Your task to perform on an android device: see creations saved in the google photos Image 0: 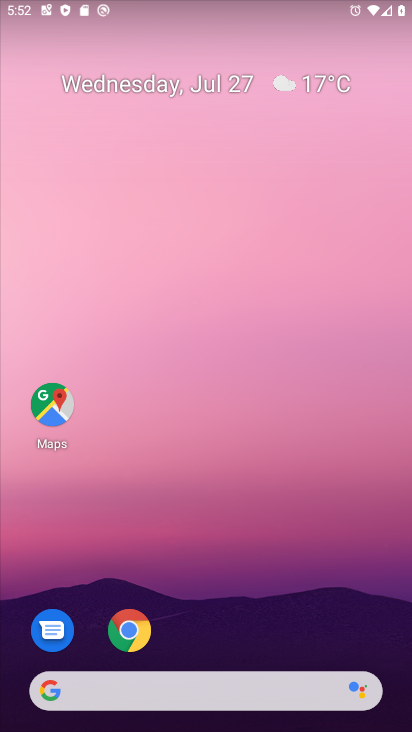
Step 0: drag from (226, 650) to (270, 144)
Your task to perform on an android device: see creations saved in the google photos Image 1: 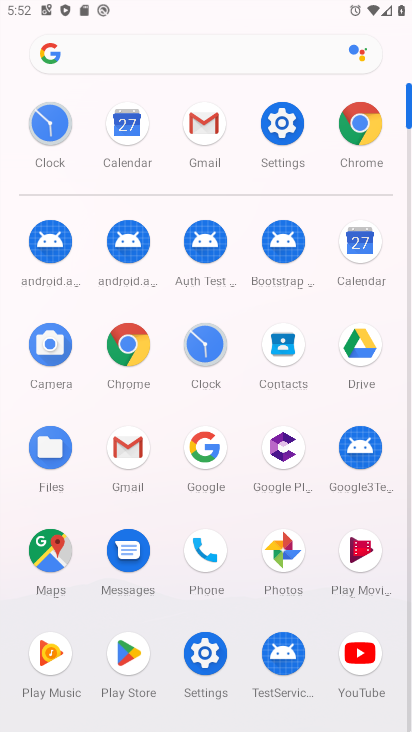
Step 1: click (286, 553)
Your task to perform on an android device: see creations saved in the google photos Image 2: 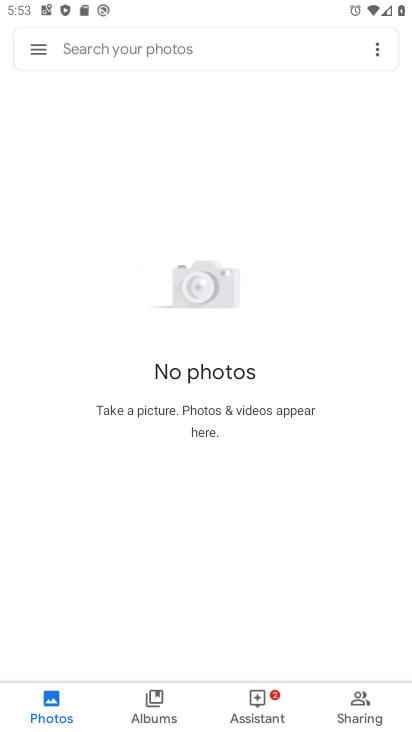
Step 2: click (120, 45)
Your task to perform on an android device: see creations saved in the google photos Image 3: 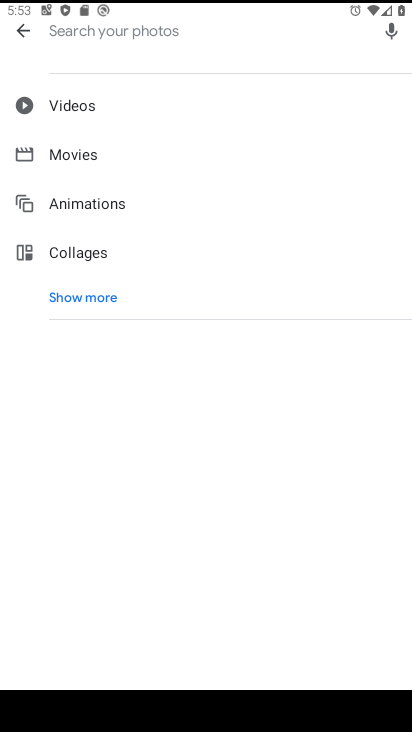
Step 3: click (80, 289)
Your task to perform on an android device: see creations saved in the google photos Image 4: 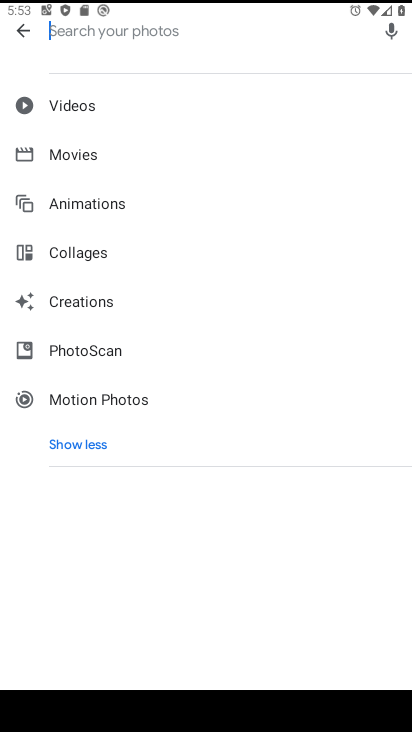
Step 4: click (90, 298)
Your task to perform on an android device: see creations saved in the google photos Image 5: 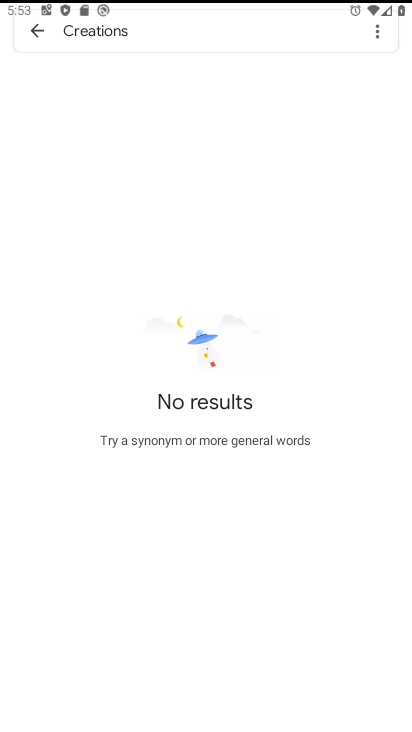
Step 5: task complete